Your task to perform on an android device: set an alarm Image 0: 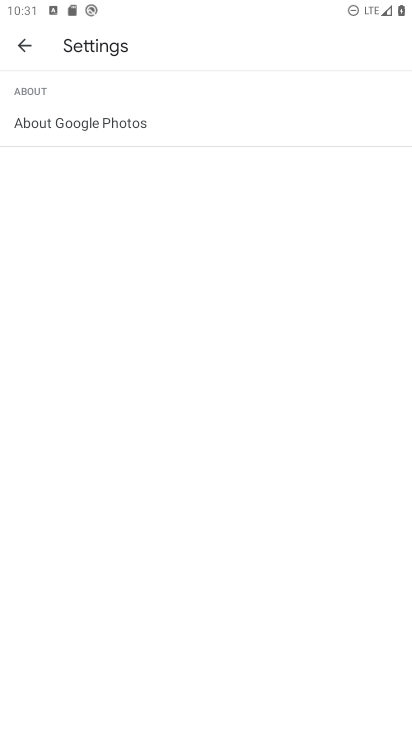
Step 0: press home button
Your task to perform on an android device: set an alarm Image 1: 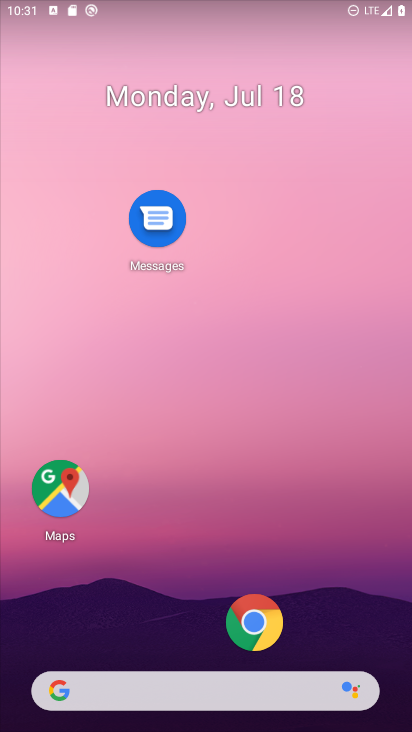
Step 1: drag from (154, 630) to (285, 39)
Your task to perform on an android device: set an alarm Image 2: 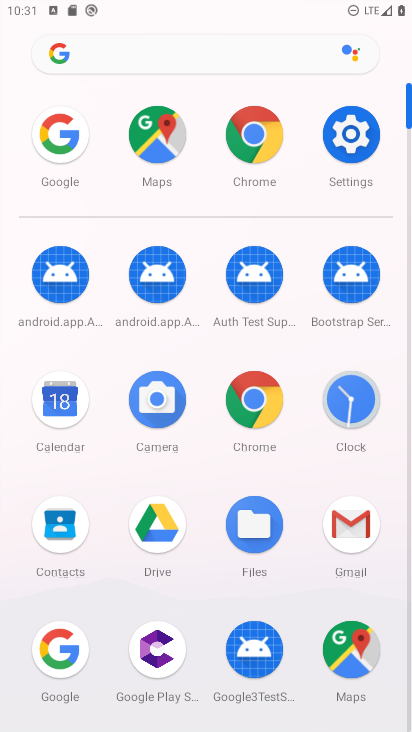
Step 2: click (354, 417)
Your task to perform on an android device: set an alarm Image 3: 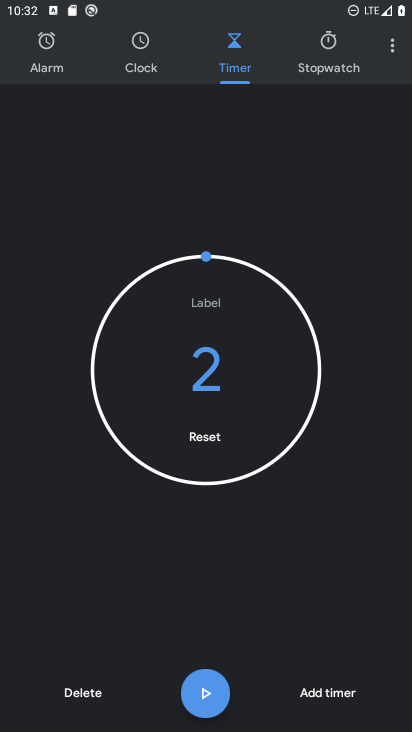
Step 3: click (48, 61)
Your task to perform on an android device: set an alarm Image 4: 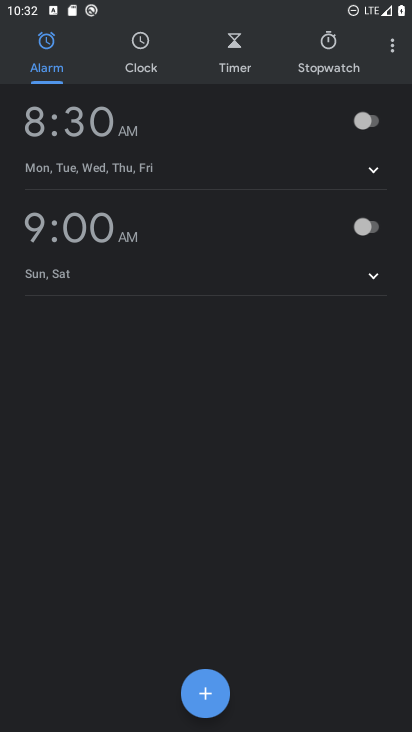
Step 4: click (218, 686)
Your task to perform on an android device: set an alarm Image 5: 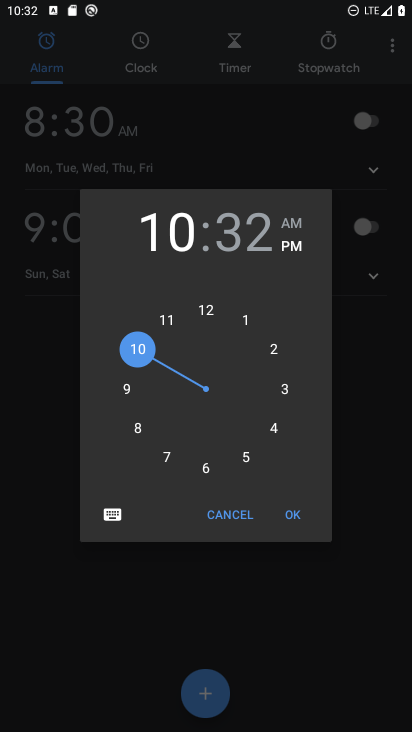
Step 5: click (295, 522)
Your task to perform on an android device: set an alarm Image 6: 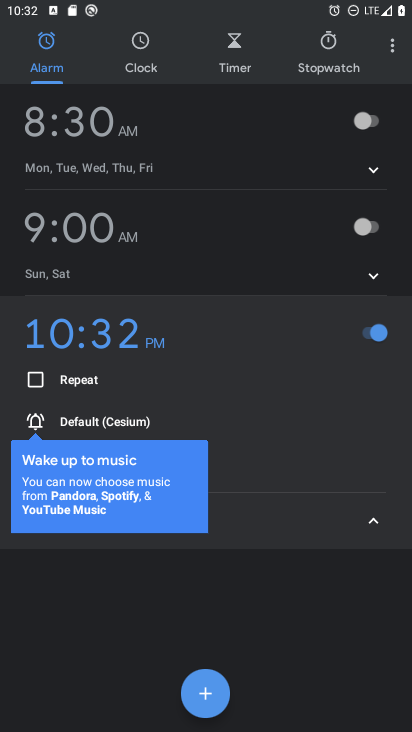
Step 6: press home button
Your task to perform on an android device: set an alarm Image 7: 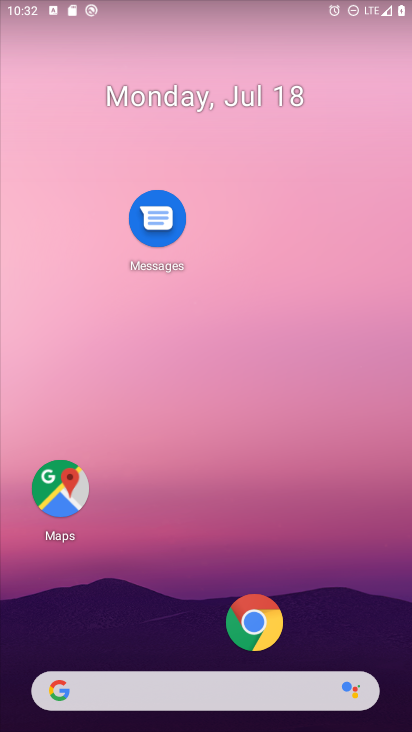
Step 7: drag from (211, 404) to (315, 16)
Your task to perform on an android device: set an alarm Image 8: 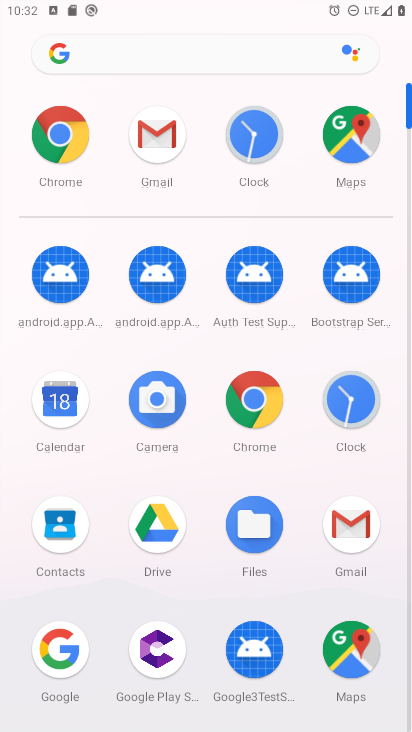
Step 8: drag from (217, 593) to (252, 216)
Your task to perform on an android device: set an alarm Image 9: 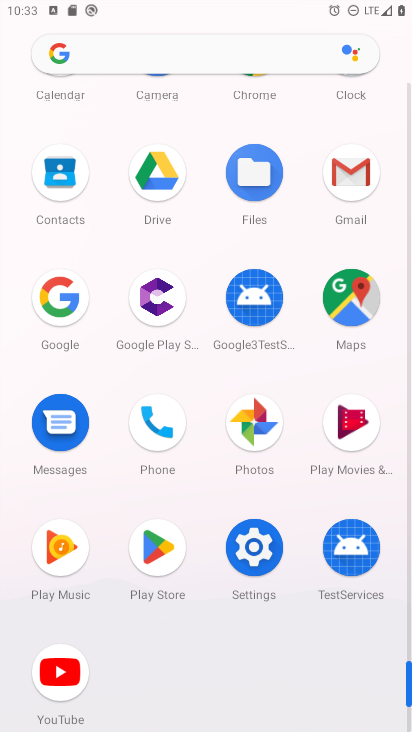
Step 9: drag from (115, 299) to (161, 577)
Your task to perform on an android device: set an alarm Image 10: 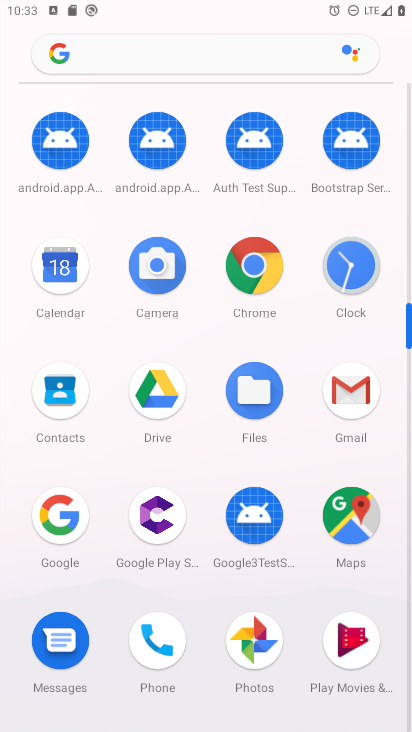
Step 10: click (367, 270)
Your task to perform on an android device: set an alarm Image 11: 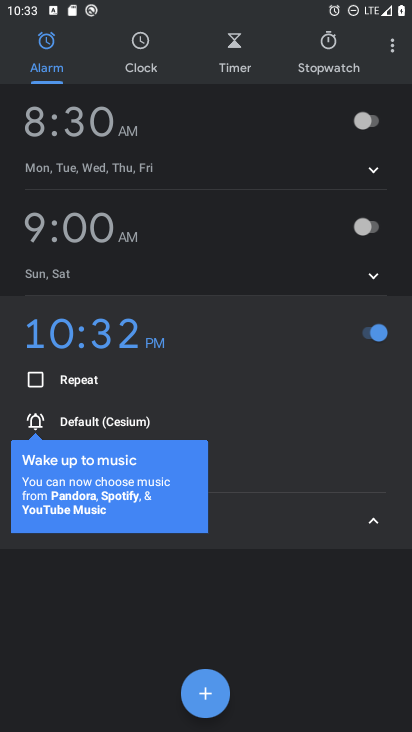
Step 11: click (211, 701)
Your task to perform on an android device: set an alarm Image 12: 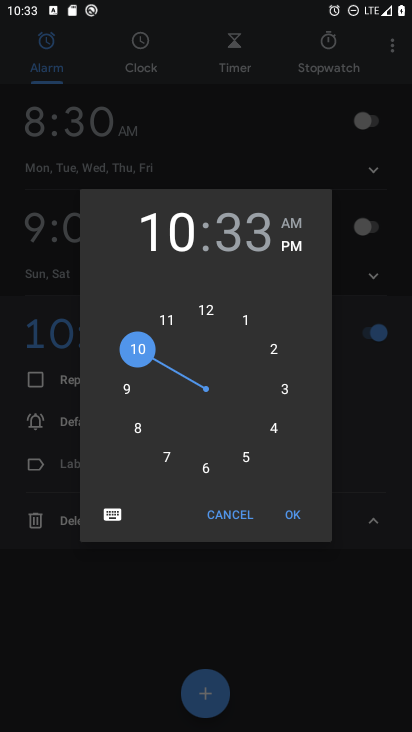
Step 12: click (293, 516)
Your task to perform on an android device: set an alarm Image 13: 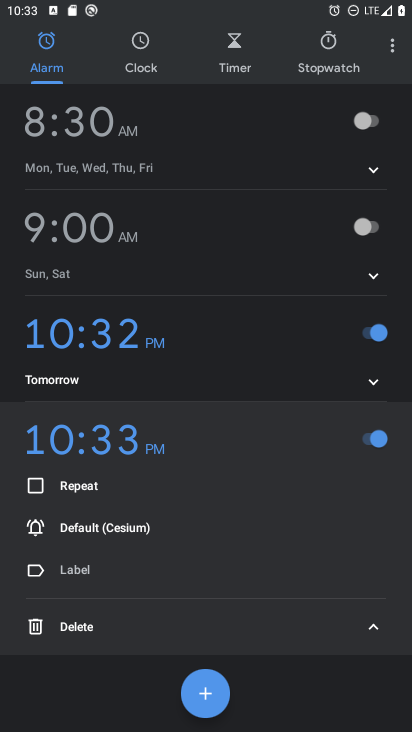
Step 13: task complete